Your task to perform on an android device: turn off priority inbox in the gmail app Image 0: 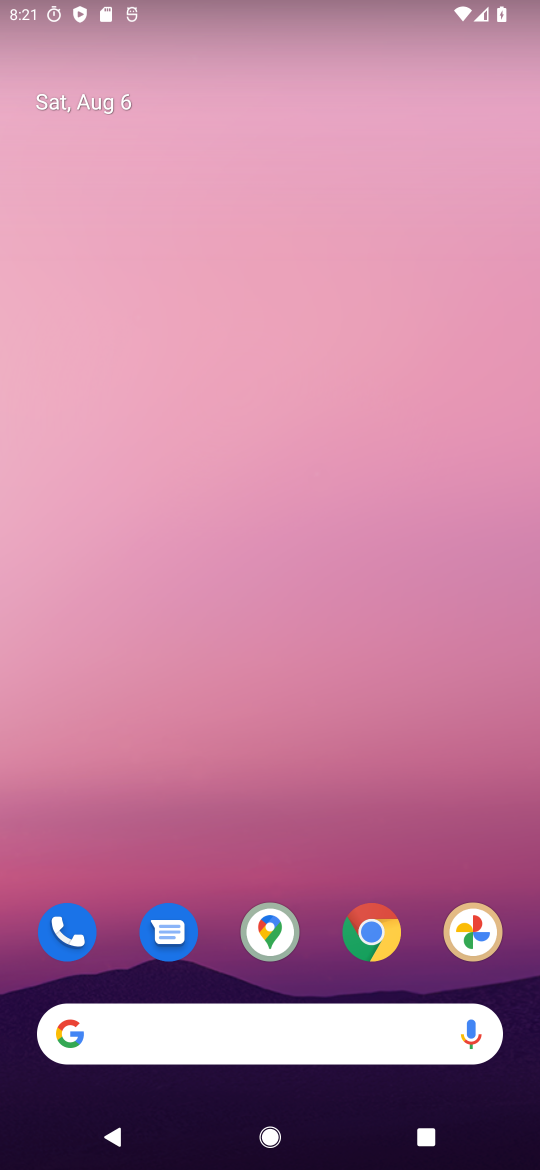
Step 0: drag from (226, 1009) to (391, 277)
Your task to perform on an android device: turn off priority inbox in the gmail app Image 1: 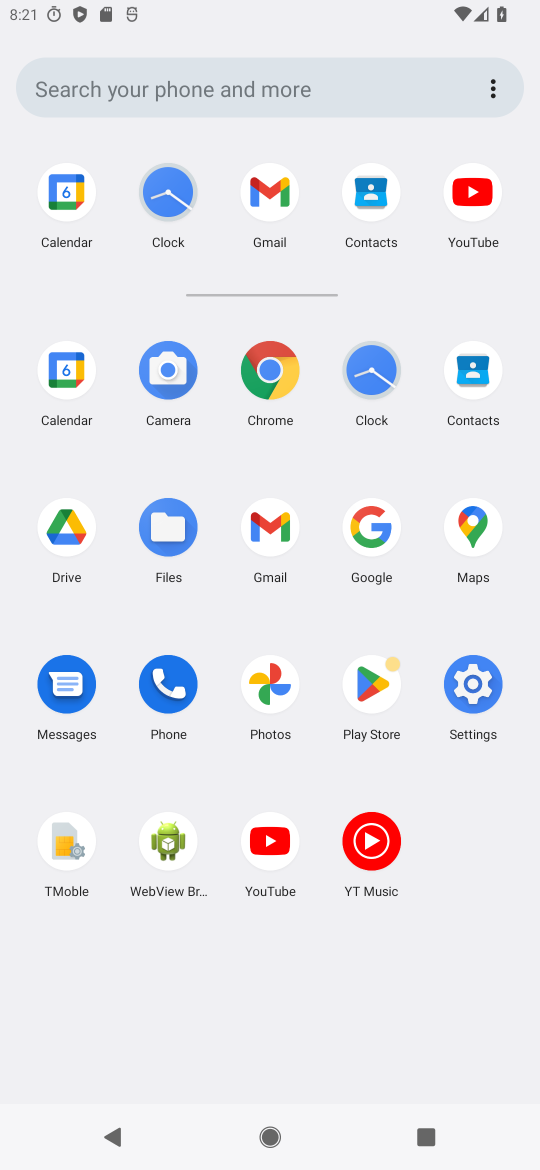
Step 1: click (270, 189)
Your task to perform on an android device: turn off priority inbox in the gmail app Image 2: 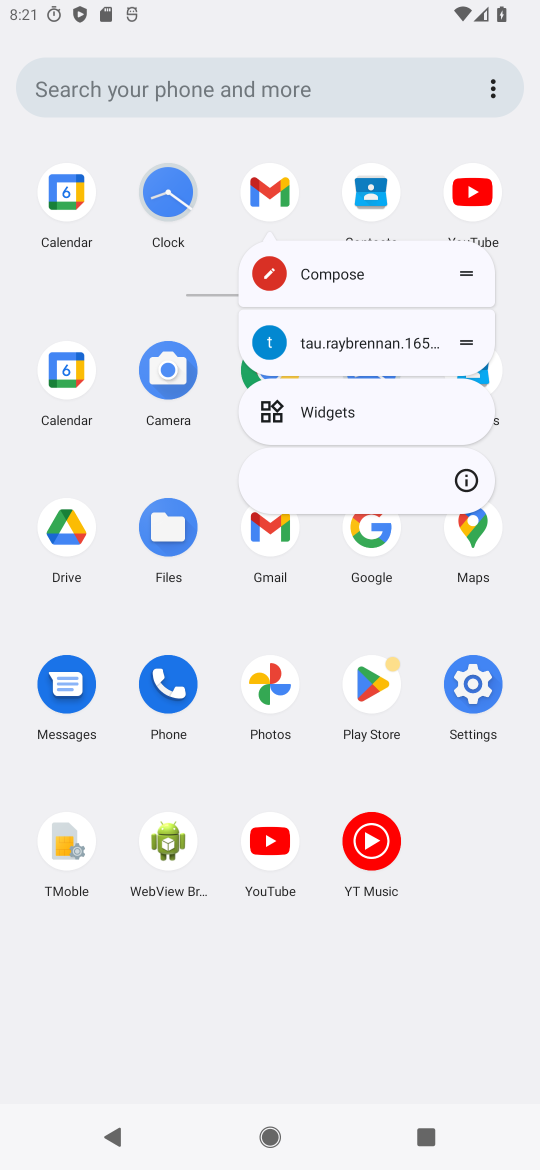
Step 2: click (270, 191)
Your task to perform on an android device: turn off priority inbox in the gmail app Image 3: 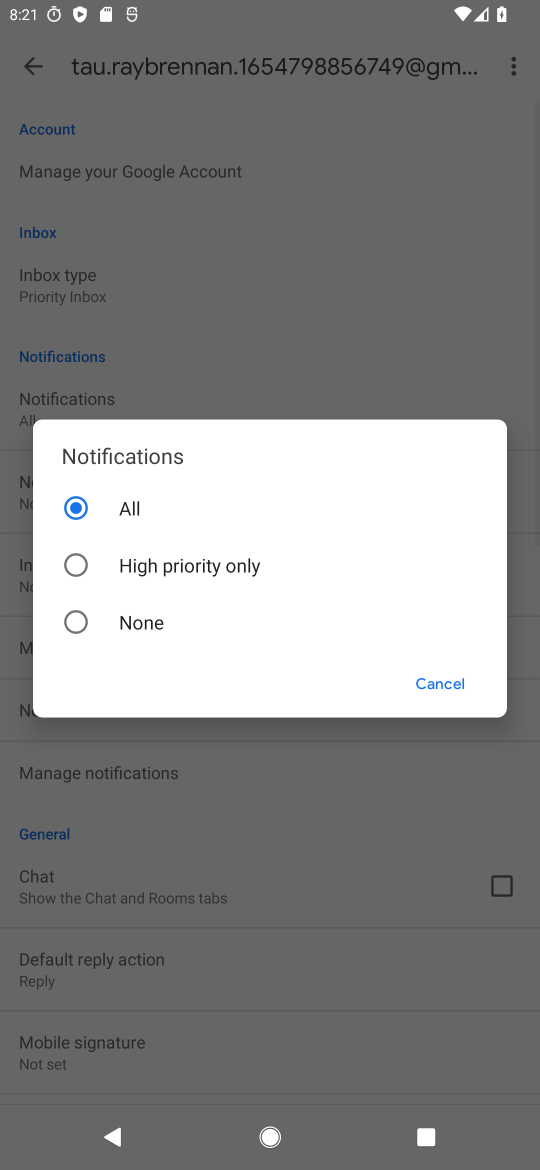
Step 3: click (458, 675)
Your task to perform on an android device: turn off priority inbox in the gmail app Image 4: 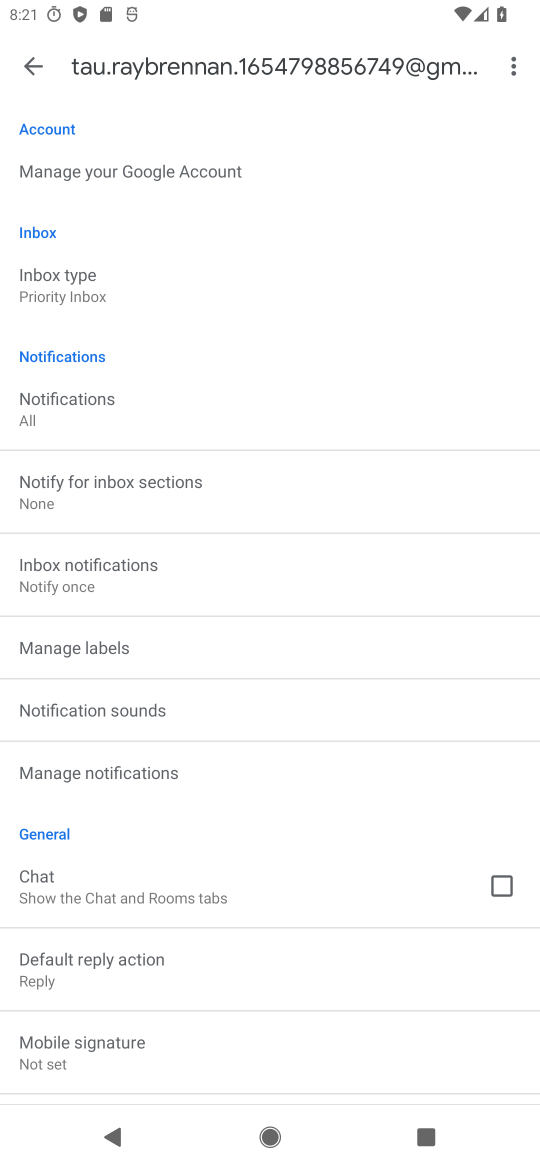
Step 4: click (87, 290)
Your task to perform on an android device: turn off priority inbox in the gmail app Image 5: 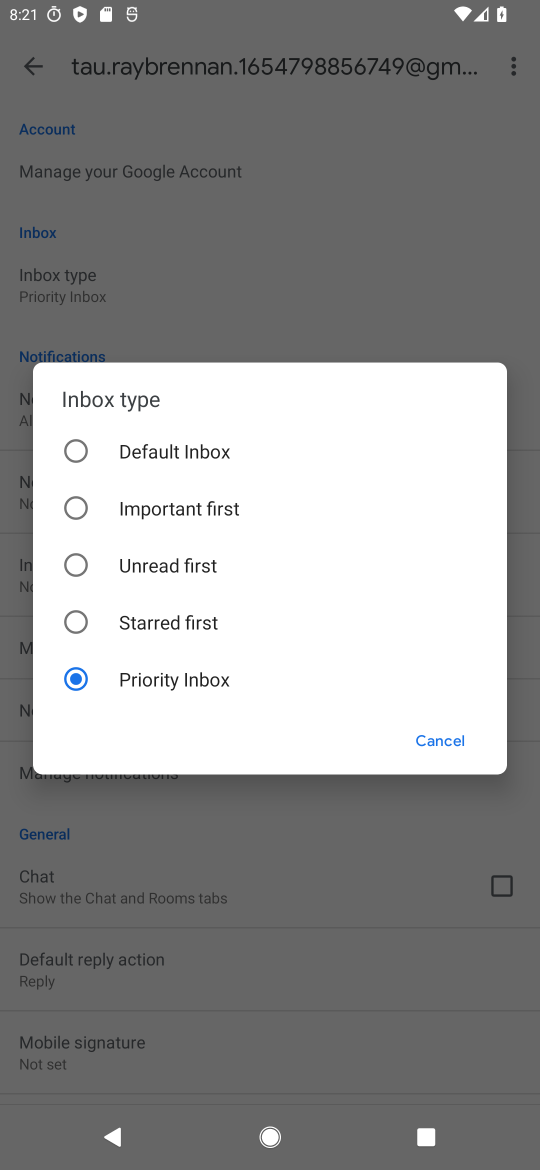
Step 5: click (76, 444)
Your task to perform on an android device: turn off priority inbox in the gmail app Image 6: 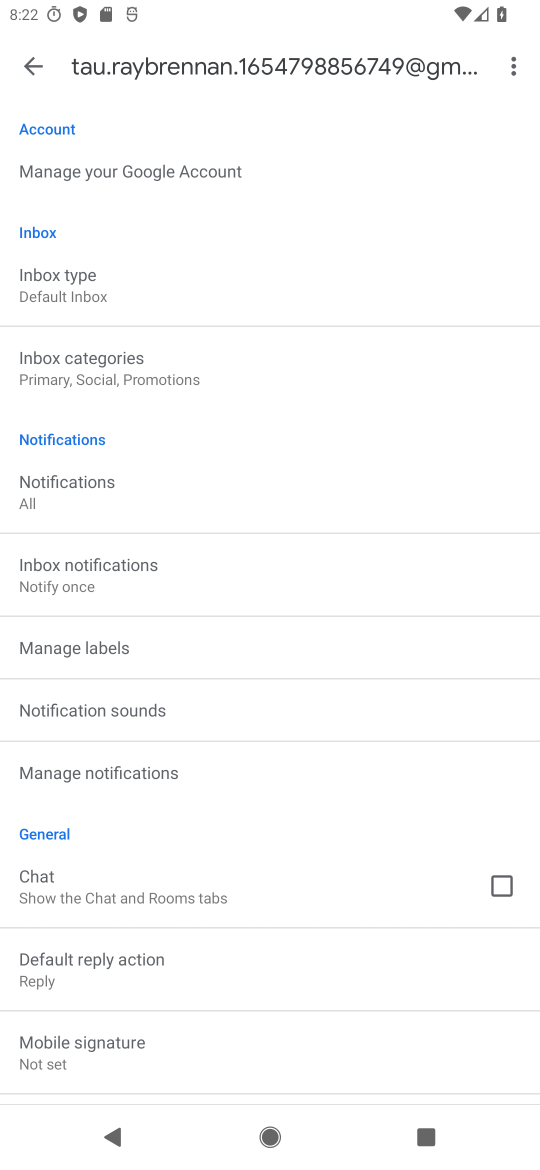
Step 6: task complete